Your task to perform on an android device: Go to Maps Image 0: 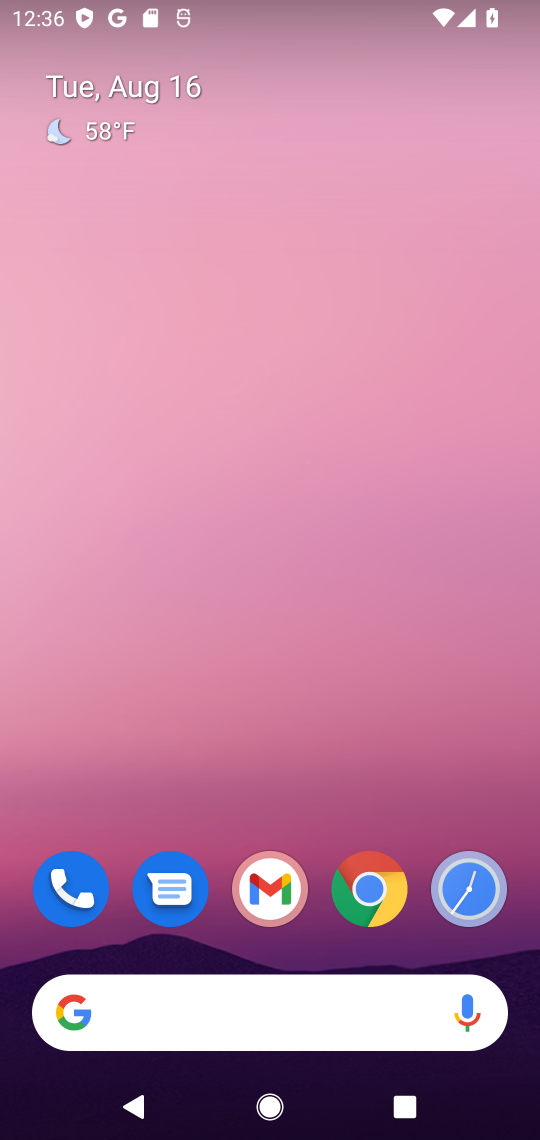
Step 0: drag from (355, 770) to (299, 10)
Your task to perform on an android device: Go to Maps Image 1: 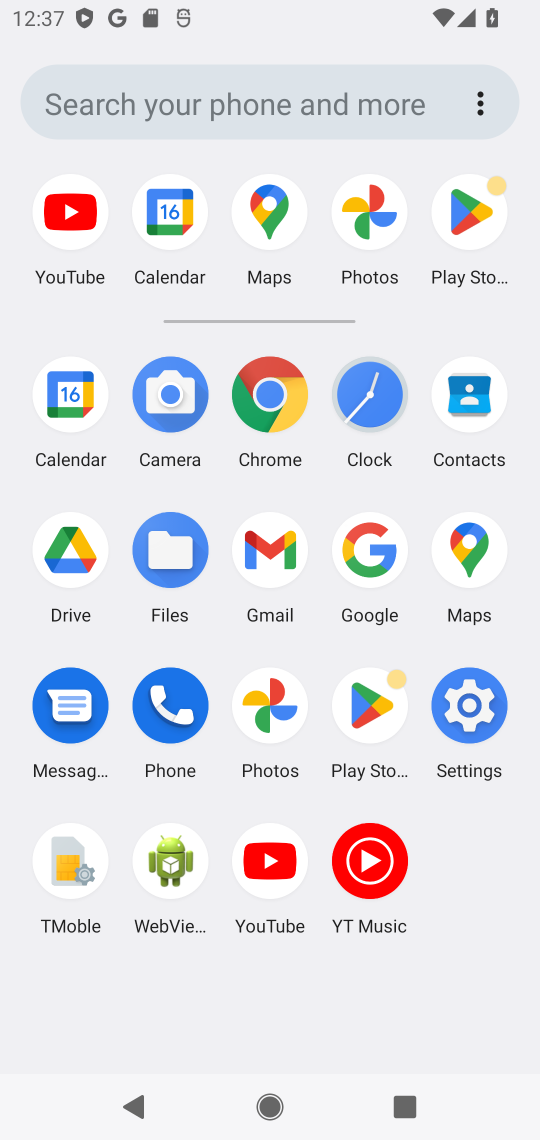
Step 1: click (453, 558)
Your task to perform on an android device: Go to Maps Image 2: 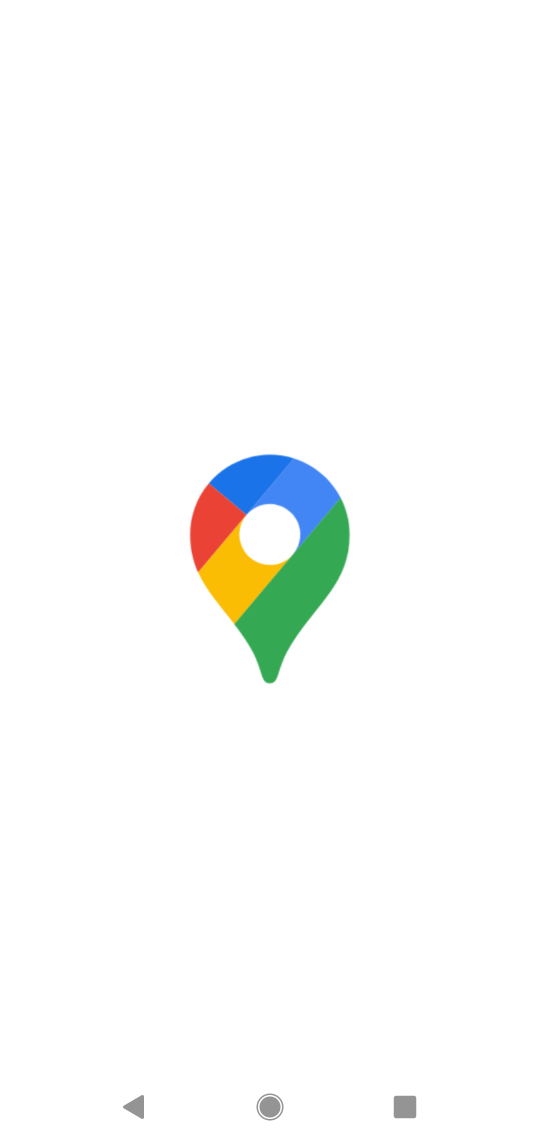
Step 2: task complete